Your task to perform on an android device: change text size in settings app Image 0: 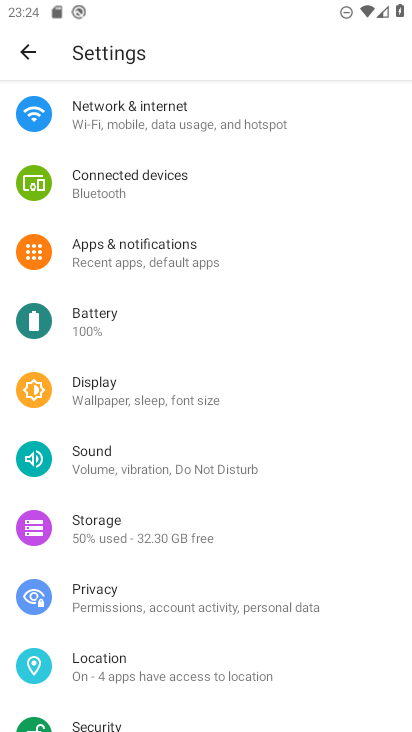
Step 0: click (172, 396)
Your task to perform on an android device: change text size in settings app Image 1: 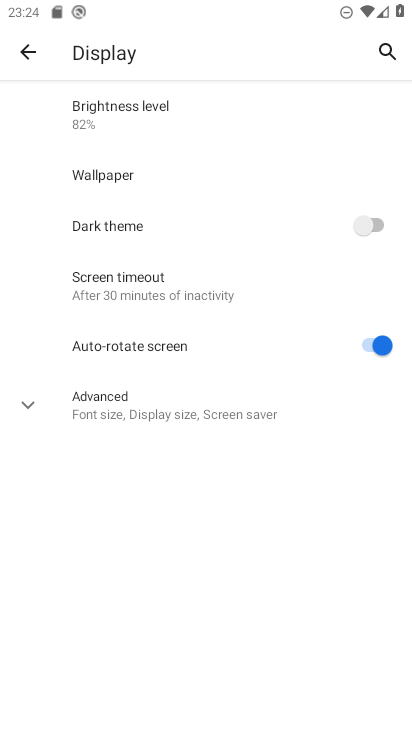
Step 1: click (117, 400)
Your task to perform on an android device: change text size in settings app Image 2: 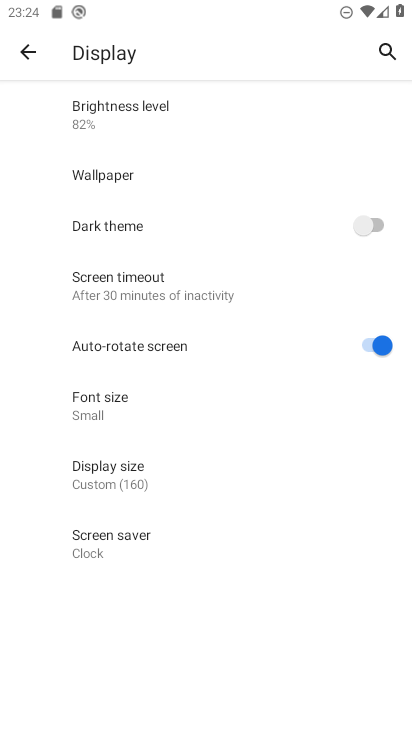
Step 2: click (129, 410)
Your task to perform on an android device: change text size in settings app Image 3: 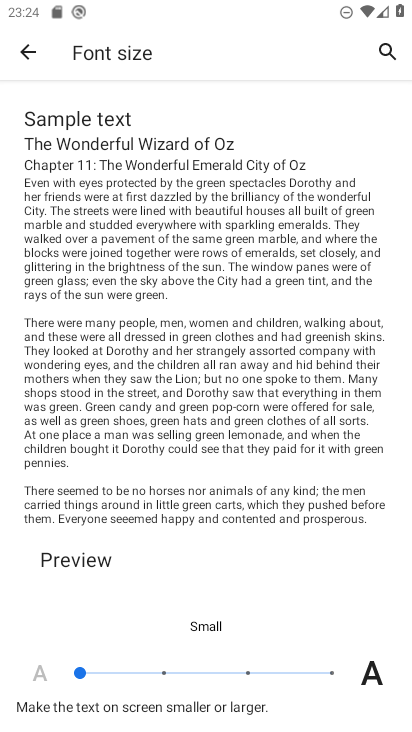
Step 3: click (146, 656)
Your task to perform on an android device: change text size in settings app Image 4: 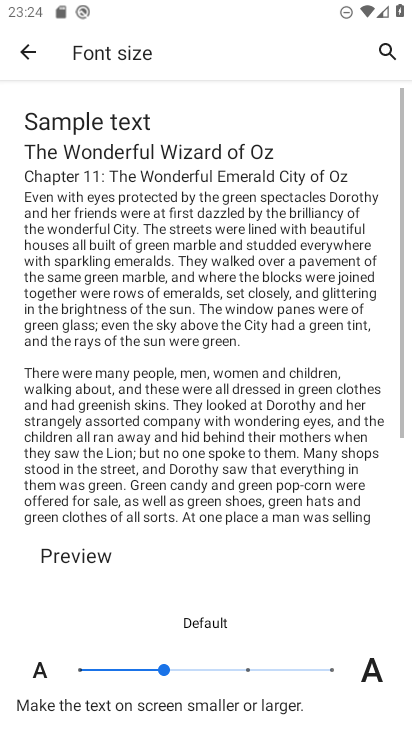
Step 4: task complete